Your task to perform on an android device: Show me popular videos on Youtube Image 0: 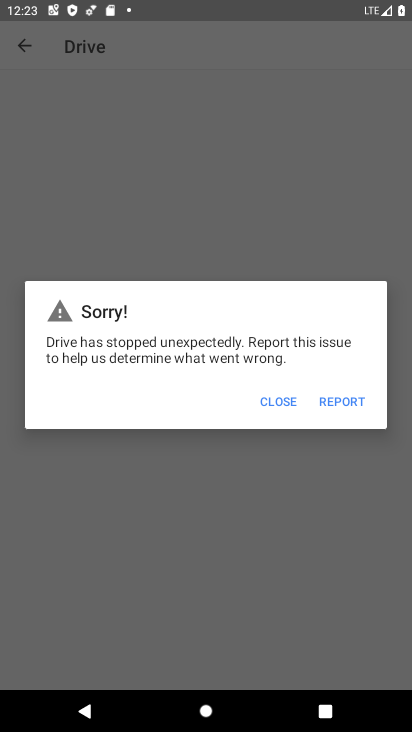
Step 0: press home button
Your task to perform on an android device: Show me popular videos on Youtube Image 1: 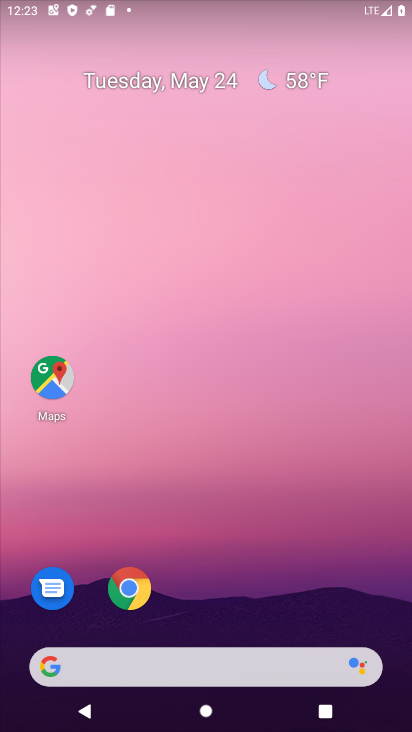
Step 1: drag from (194, 598) to (246, 0)
Your task to perform on an android device: Show me popular videos on Youtube Image 2: 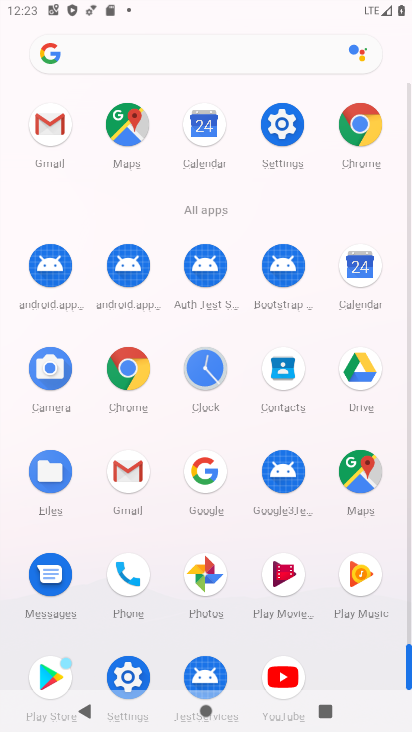
Step 2: click (283, 666)
Your task to perform on an android device: Show me popular videos on Youtube Image 3: 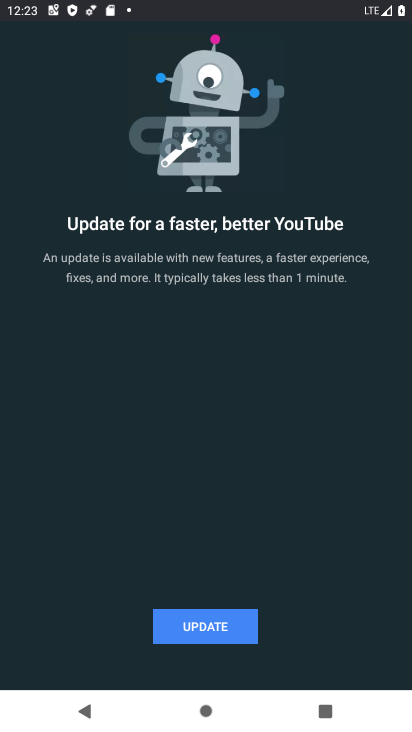
Step 3: click (199, 619)
Your task to perform on an android device: Show me popular videos on Youtube Image 4: 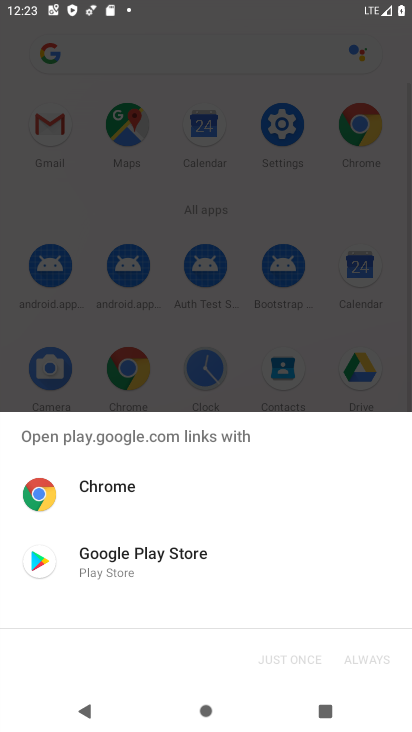
Step 4: drag from (120, 551) to (165, 551)
Your task to perform on an android device: Show me popular videos on Youtube Image 5: 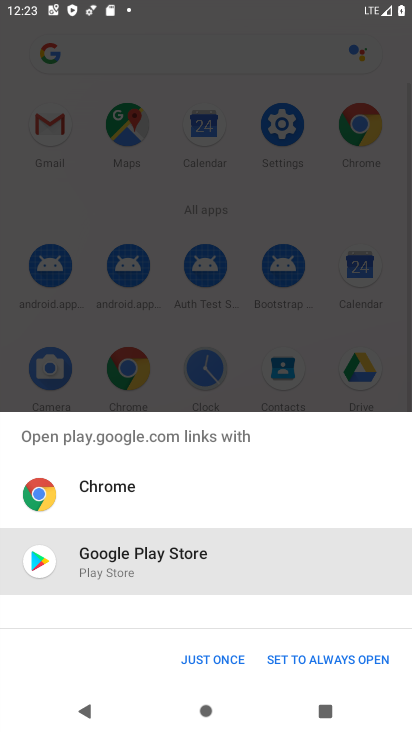
Step 5: click (323, 658)
Your task to perform on an android device: Show me popular videos on Youtube Image 6: 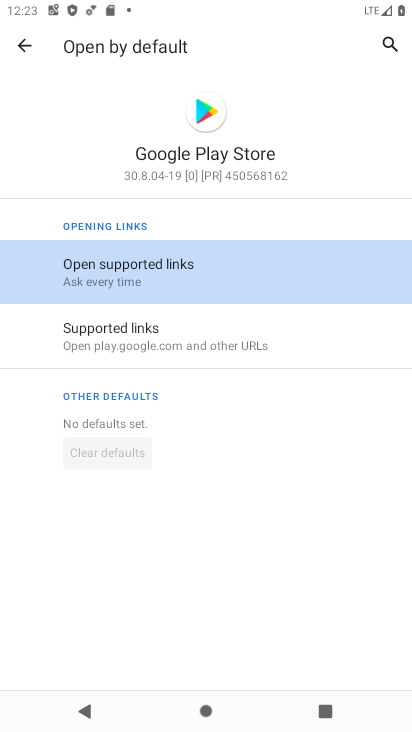
Step 6: click (89, 270)
Your task to perform on an android device: Show me popular videos on Youtube Image 7: 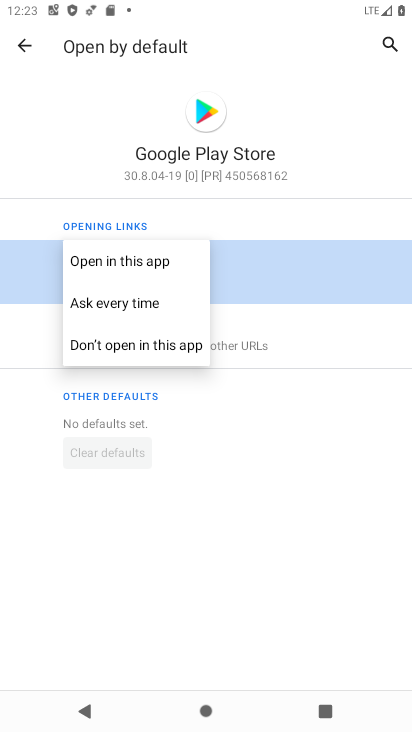
Step 7: click (130, 258)
Your task to perform on an android device: Show me popular videos on Youtube Image 8: 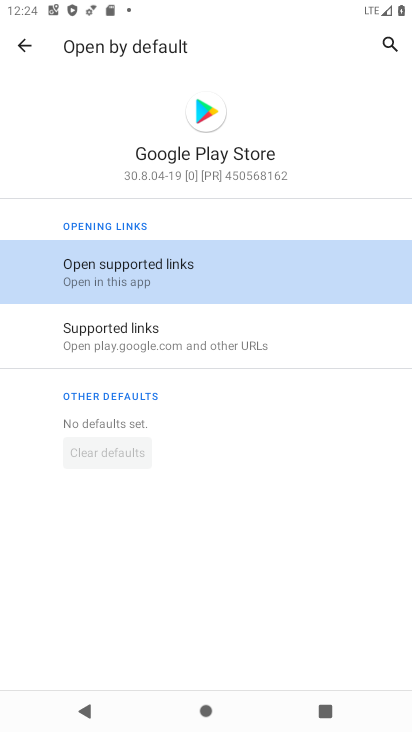
Step 8: click (28, 39)
Your task to perform on an android device: Show me popular videos on Youtube Image 9: 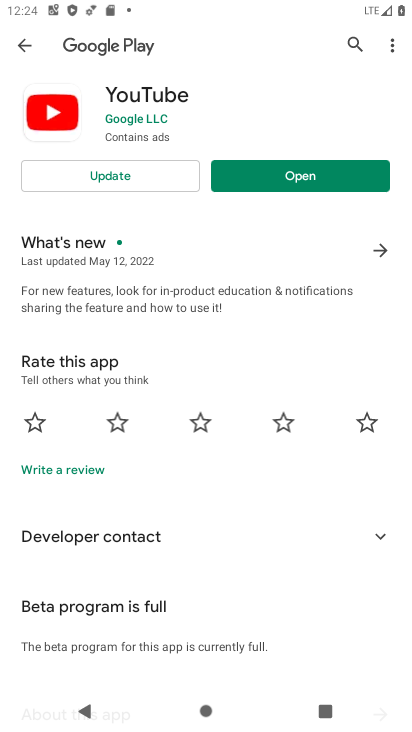
Step 9: click (297, 182)
Your task to perform on an android device: Show me popular videos on Youtube Image 10: 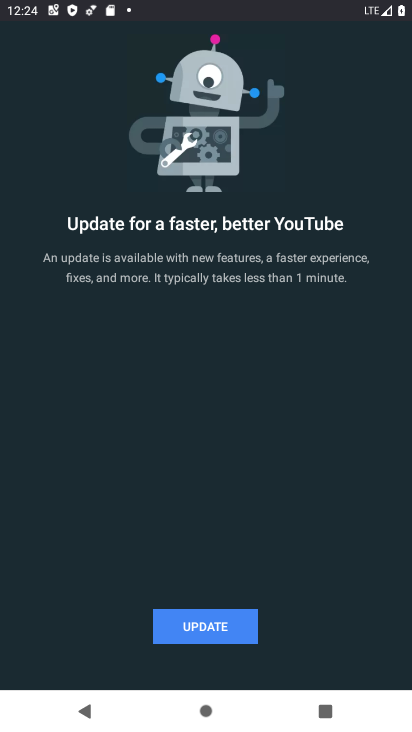
Step 10: click (211, 625)
Your task to perform on an android device: Show me popular videos on Youtube Image 11: 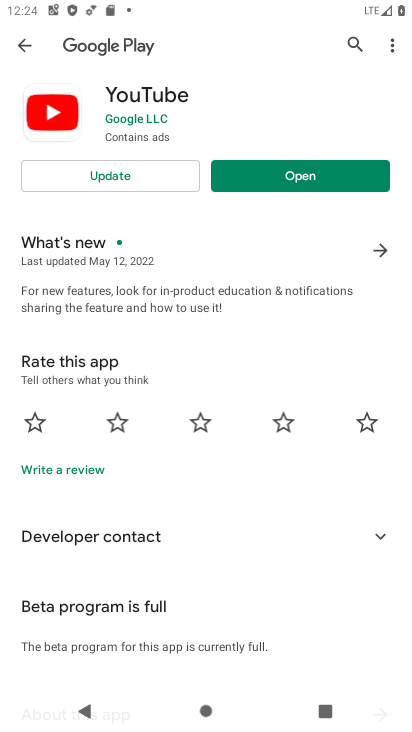
Step 11: click (100, 176)
Your task to perform on an android device: Show me popular videos on Youtube Image 12: 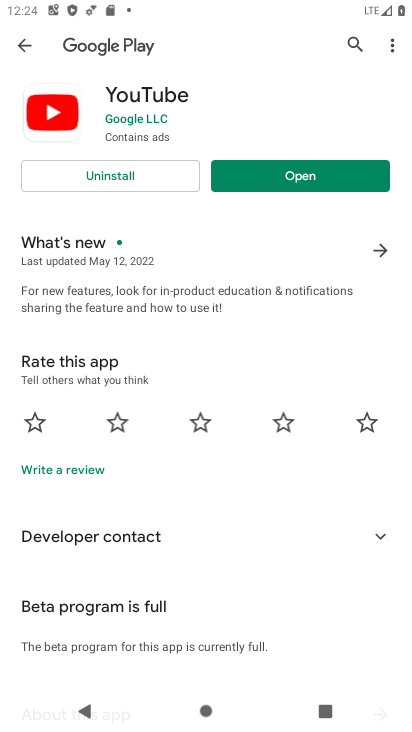
Step 12: click (248, 183)
Your task to perform on an android device: Show me popular videos on Youtube Image 13: 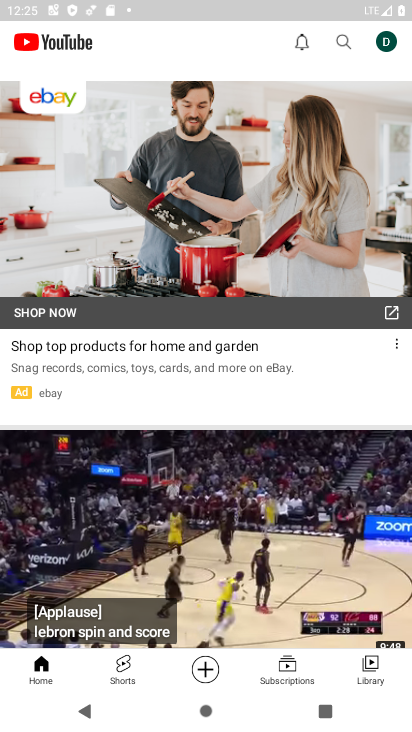
Step 13: task complete